Your task to perform on an android device: Search for Mexican restaurants on Maps Image 0: 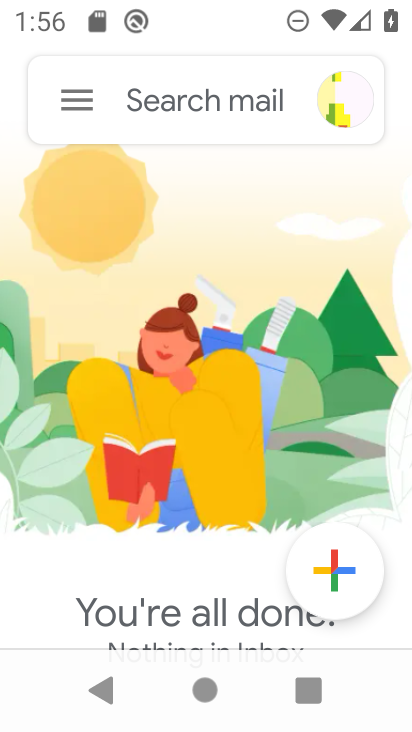
Step 0: press home button
Your task to perform on an android device: Search for Mexican restaurants on Maps Image 1: 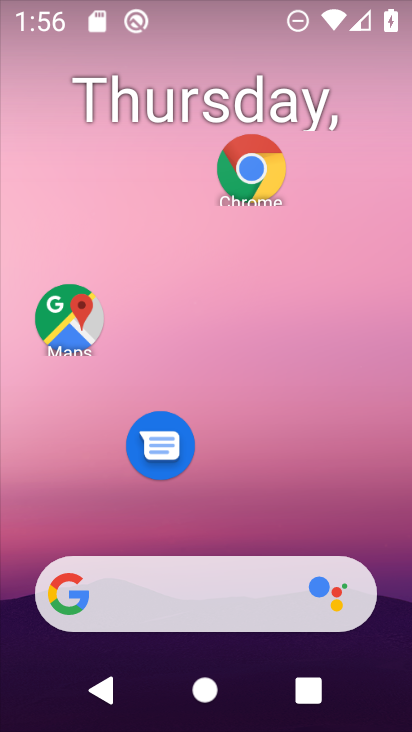
Step 1: drag from (263, 613) to (410, 182)
Your task to perform on an android device: Search for Mexican restaurants on Maps Image 2: 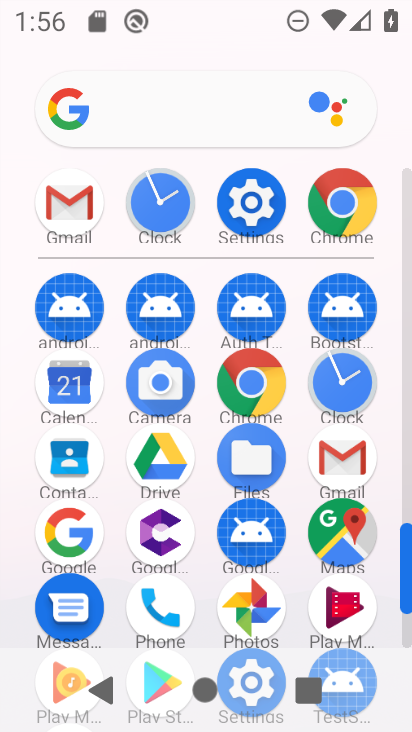
Step 2: click (356, 529)
Your task to perform on an android device: Search for Mexican restaurants on Maps Image 3: 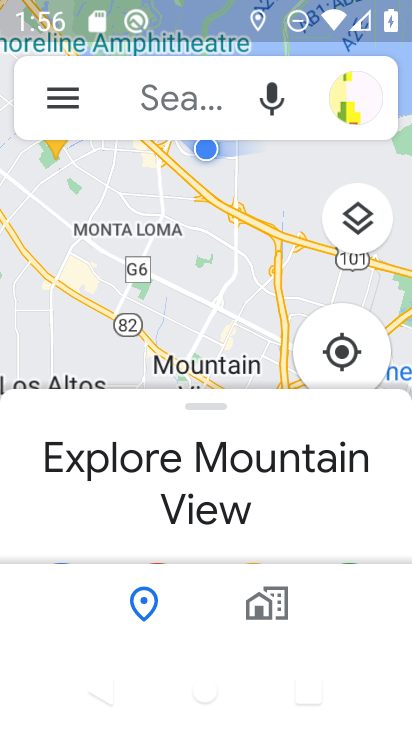
Step 3: click (171, 96)
Your task to perform on an android device: Search for Mexican restaurants on Maps Image 4: 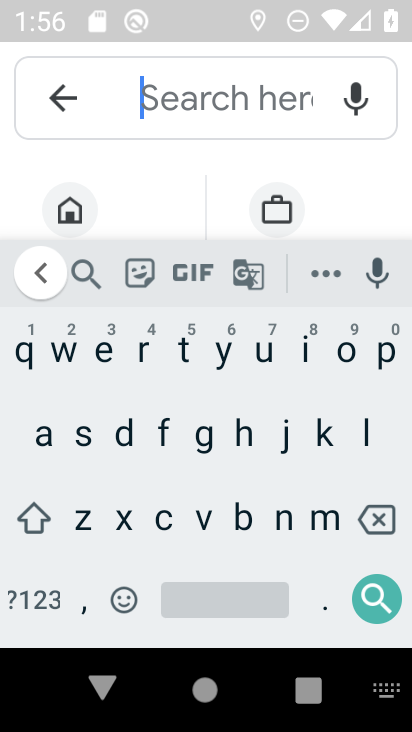
Step 4: click (323, 519)
Your task to perform on an android device: Search for Mexican restaurants on Maps Image 5: 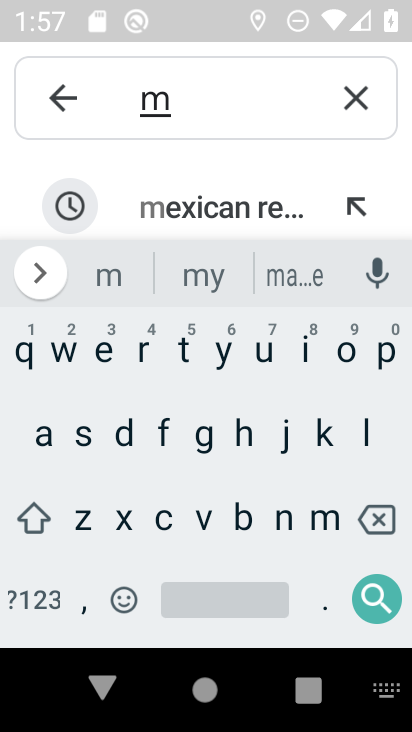
Step 5: click (216, 209)
Your task to perform on an android device: Search for Mexican restaurants on Maps Image 6: 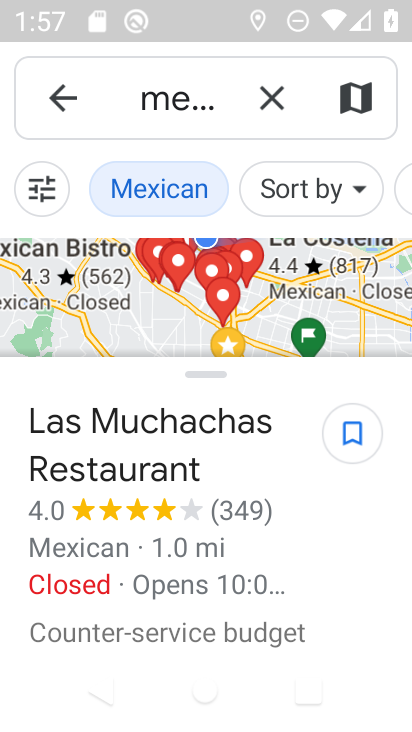
Step 6: click (178, 263)
Your task to perform on an android device: Search for Mexican restaurants on Maps Image 7: 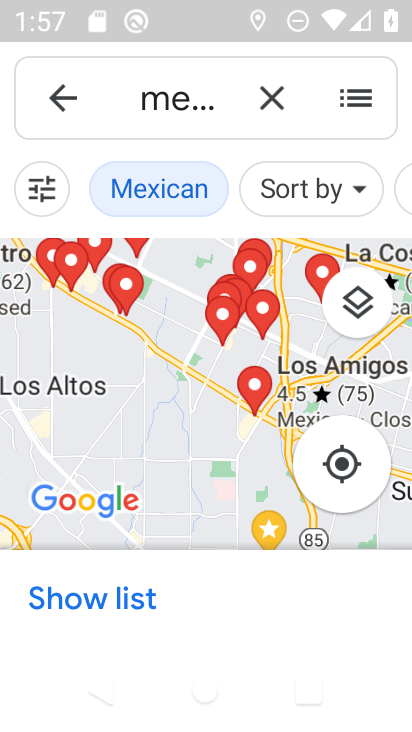
Step 7: task complete